Your task to perform on an android device: toggle sleep mode Image 0: 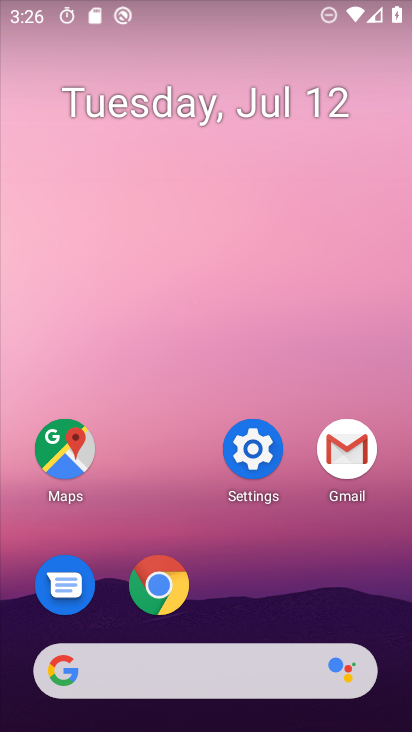
Step 0: click (264, 455)
Your task to perform on an android device: toggle sleep mode Image 1: 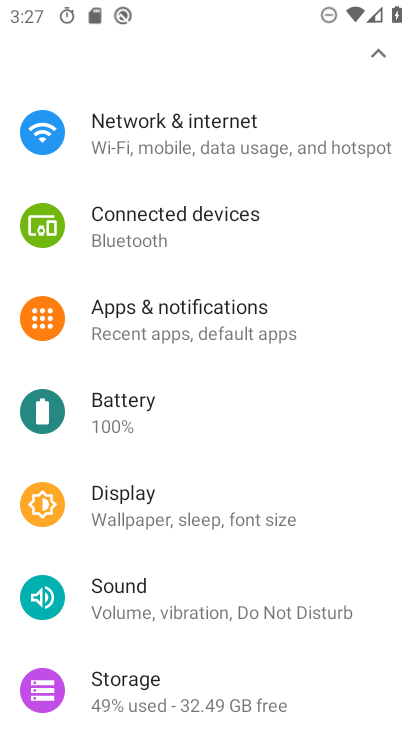
Step 1: click (137, 503)
Your task to perform on an android device: toggle sleep mode Image 2: 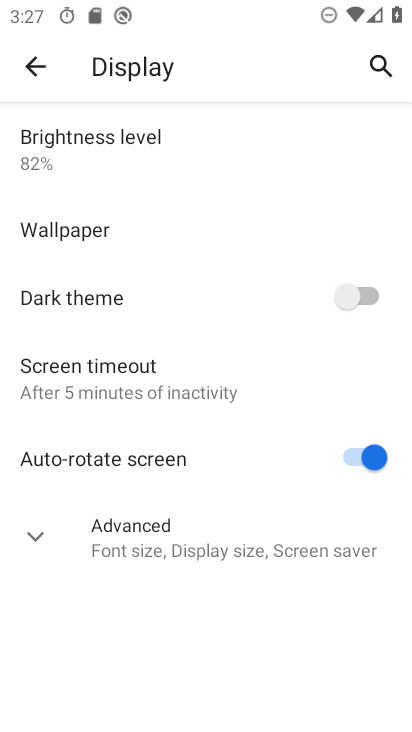
Step 2: drag from (201, 218) to (222, 493)
Your task to perform on an android device: toggle sleep mode Image 3: 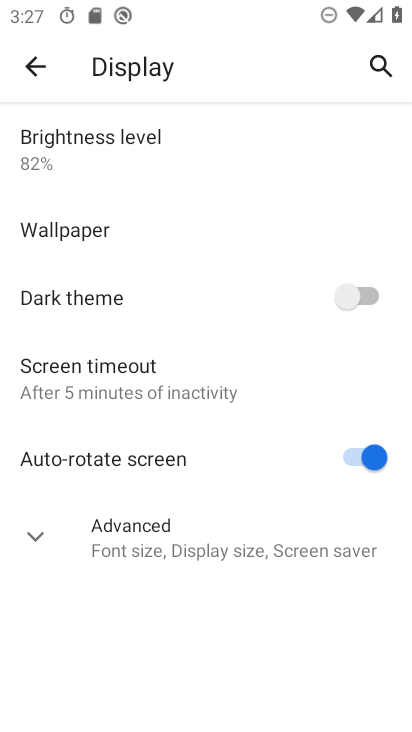
Step 3: click (47, 532)
Your task to perform on an android device: toggle sleep mode Image 4: 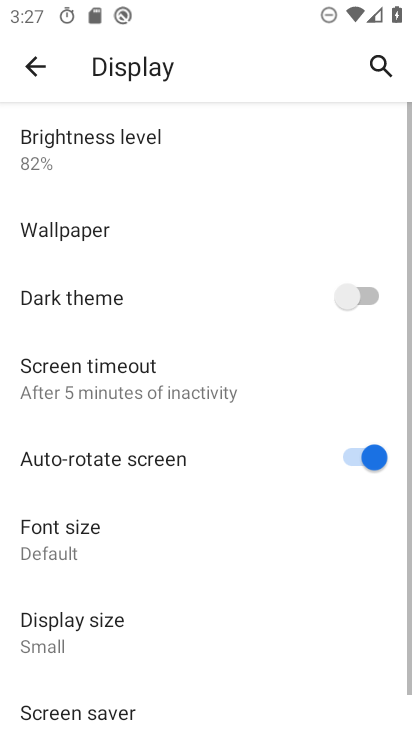
Step 4: click (90, 376)
Your task to perform on an android device: toggle sleep mode Image 5: 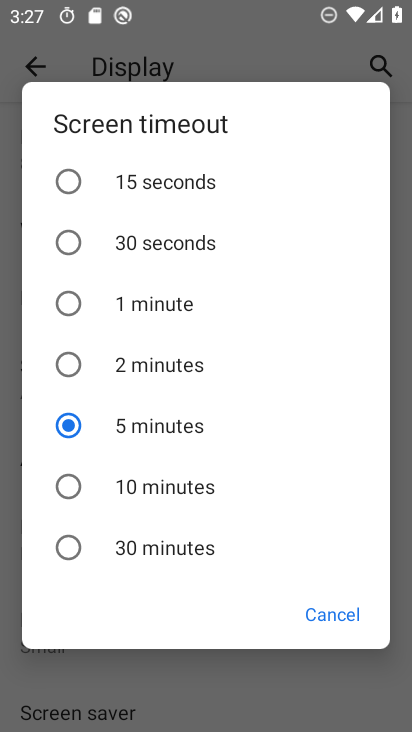
Step 5: click (60, 366)
Your task to perform on an android device: toggle sleep mode Image 6: 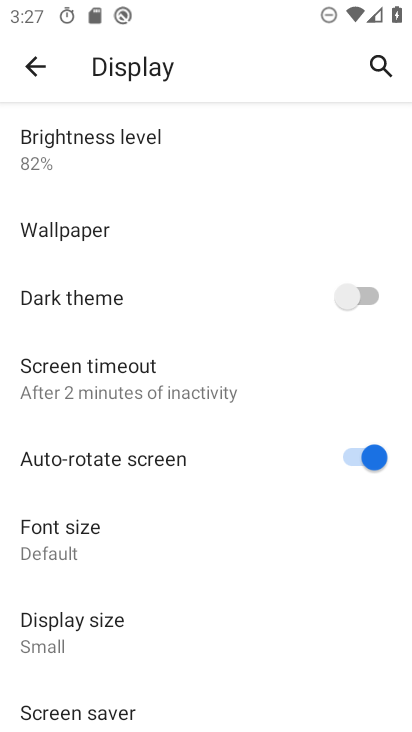
Step 6: task complete